Your task to perform on an android device: change the clock display to digital Image 0: 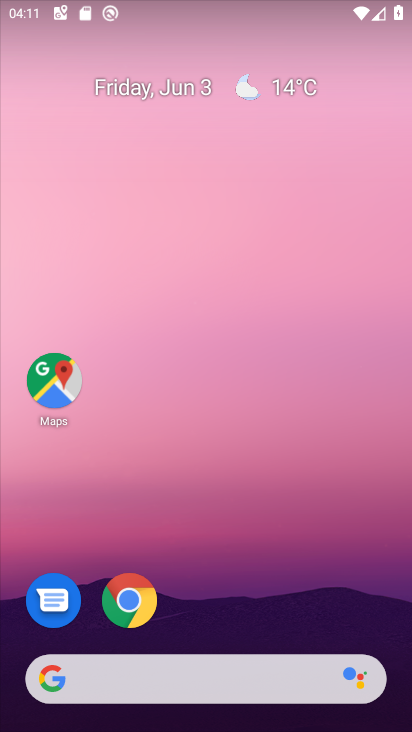
Step 0: drag from (312, 560) to (242, 91)
Your task to perform on an android device: change the clock display to digital Image 1: 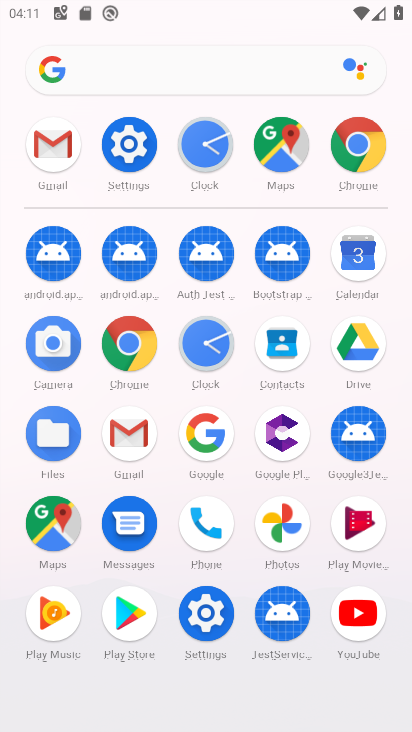
Step 1: click (213, 342)
Your task to perform on an android device: change the clock display to digital Image 2: 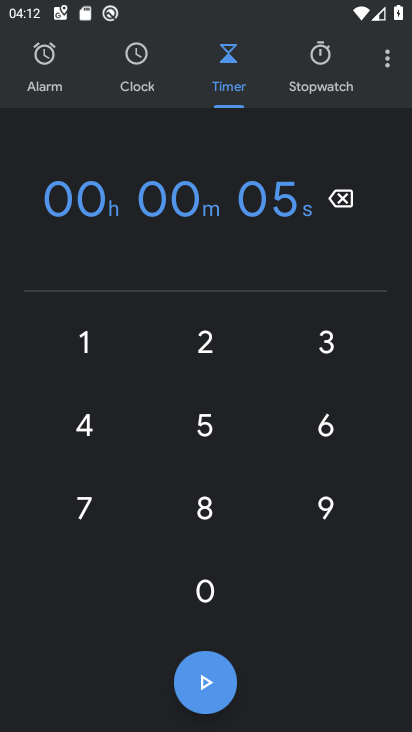
Step 2: click (390, 48)
Your task to perform on an android device: change the clock display to digital Image 3: 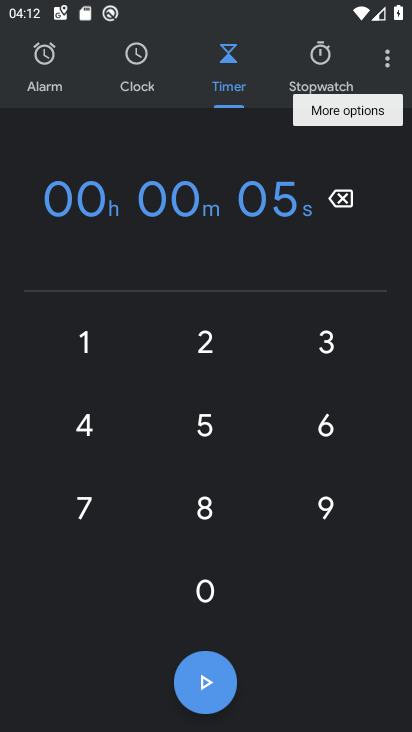
Step 3: click (386, 50)
Your task to perform on an android device: change the clock display to digital Image 4: 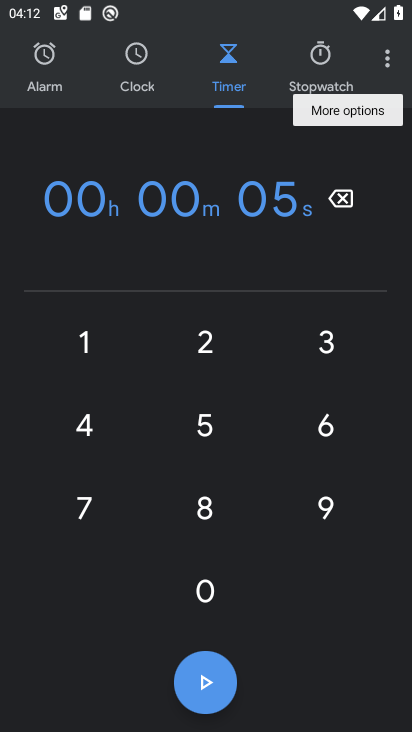
Step 4: click (386, 50)
Your task to perform on an android device: change the clock display to digital Image 5: 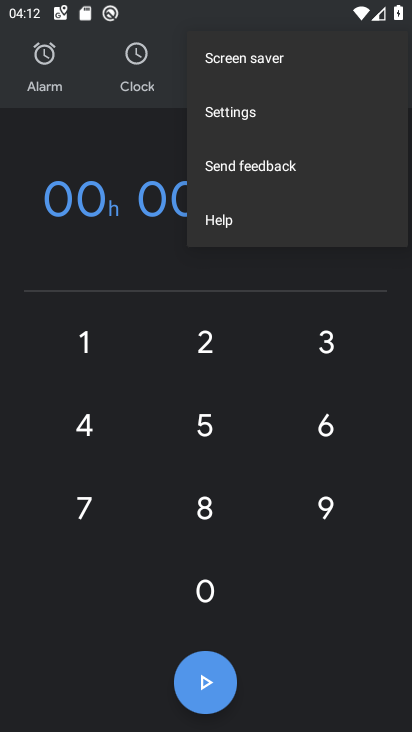
Step 5: click (241, 115)
Your task to perform on an android device: change the clock display to digital Image 6: 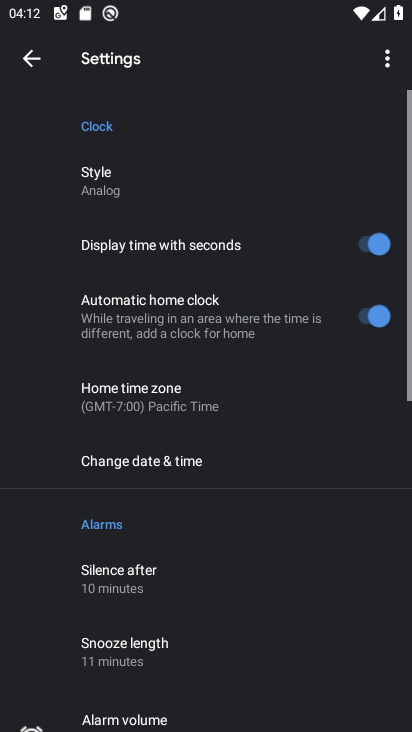
Step 6: click (110, 188)
Your task to perform on an android device: change the clock display to digital Image 7: 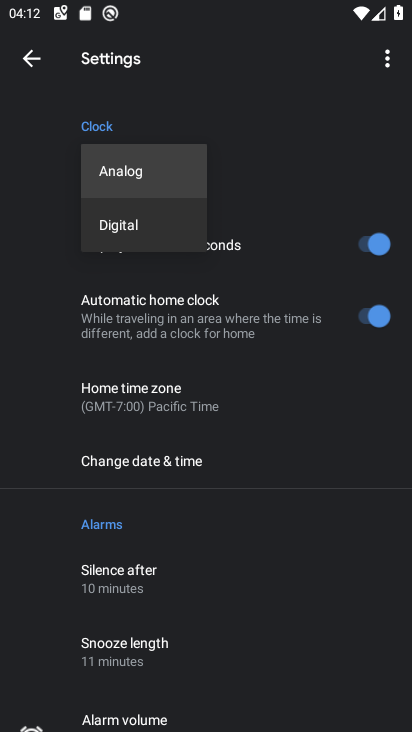
Step 7: click (128, 228)
Your task to perform on an android device: change the clock display to digital Image 8: 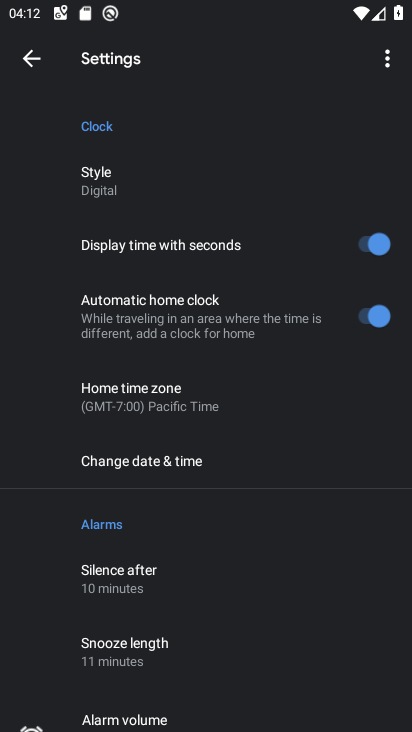
Step 8: task complete